Your task to perform on an android device: check android version Image 0: 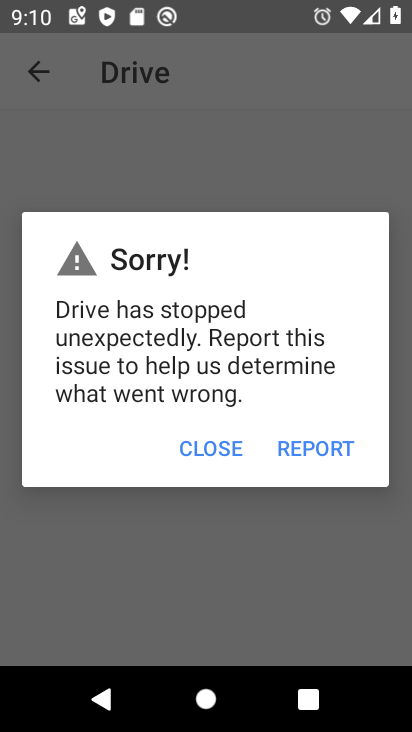
Step 0: press home button
Your task to perform on an android device: check android version Image 1: 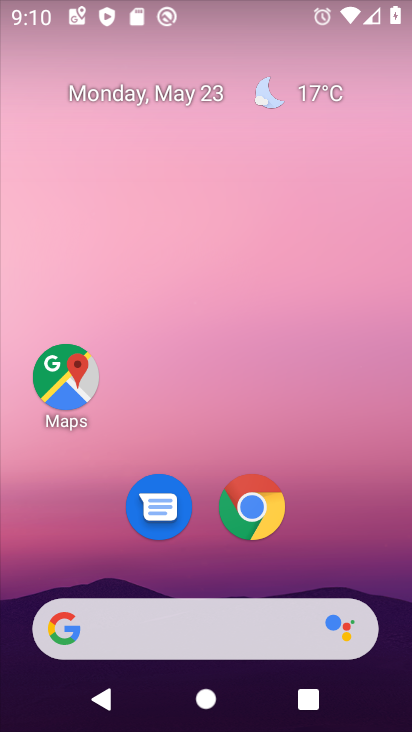
Step 1: drag from (352, 587) to (294, 9)
Your task to perform on an android device: check android version Image 2: 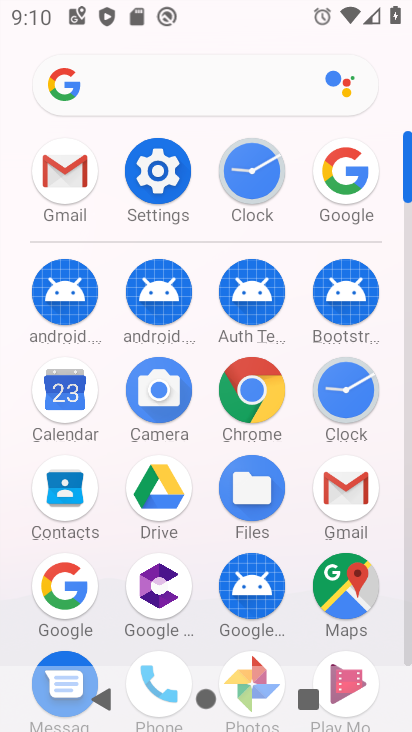
Step 2: click (161, 181)
Your task to perform on an android device: check android version Image 3: 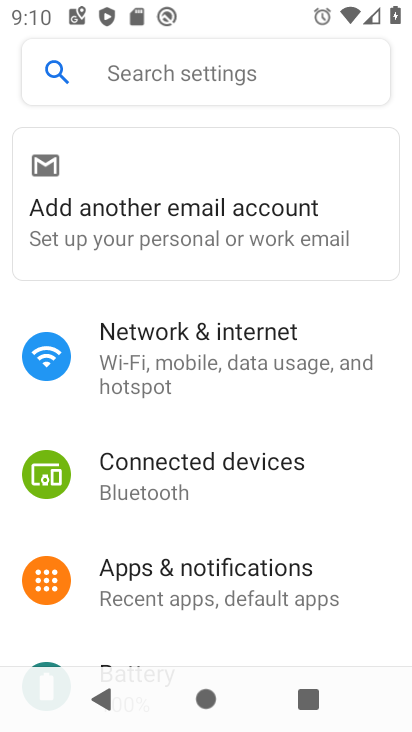
Step 3: drag from (274, 584) to (236, 84)
Your task to perform on an android device: check android version Image 4: 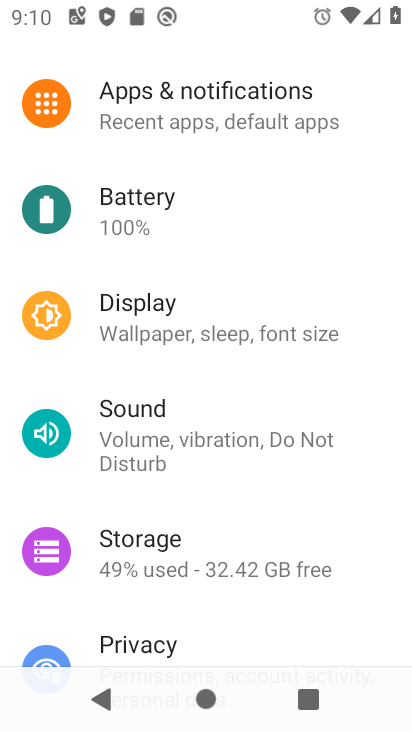
Step 4: drag from (234, 521) to (210, 32)
Your task to perform on an android device: check android version Image 5: 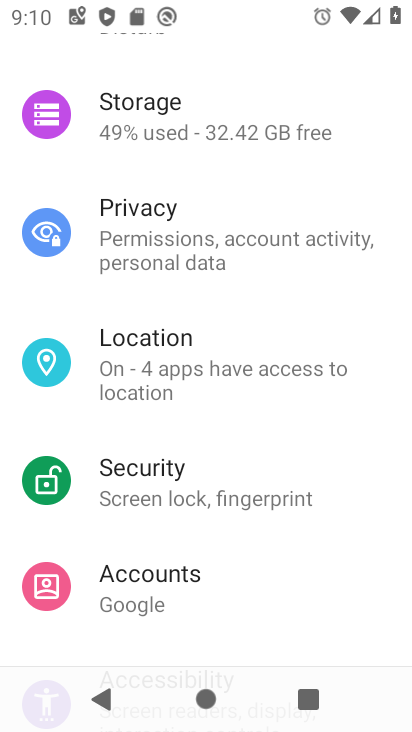
Step 5: drag from (178, 473) to (160, 26)
Your task to perform on an android device: check android version Image 6: 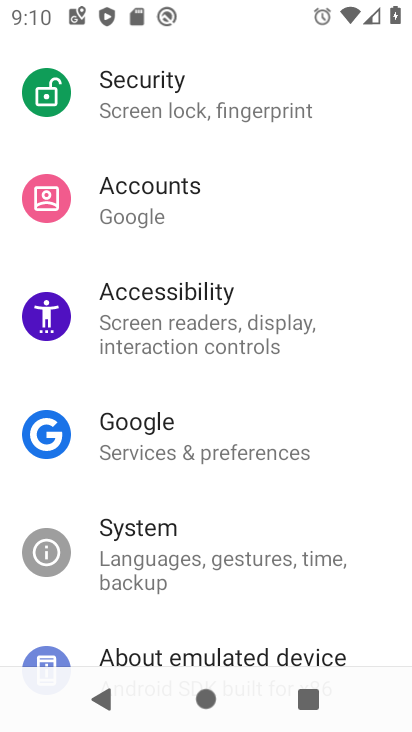
Step 6: drag from (205, 546) to (177, 128)
Your task to perform on an android device: check android version Image 7: 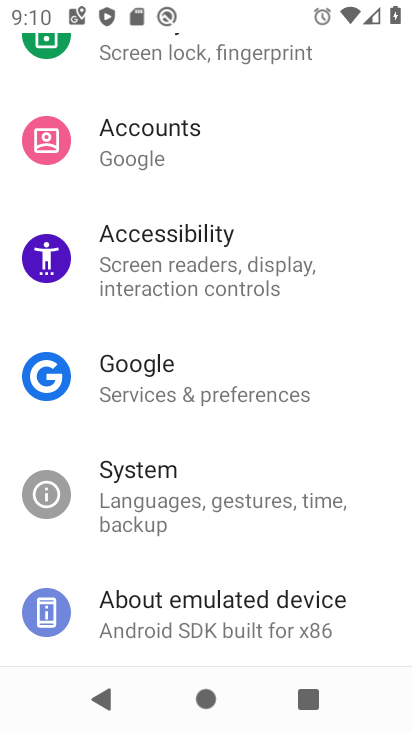
Step 7: click (138, 604)
Your task to perform on an android device: check android version Image 8: 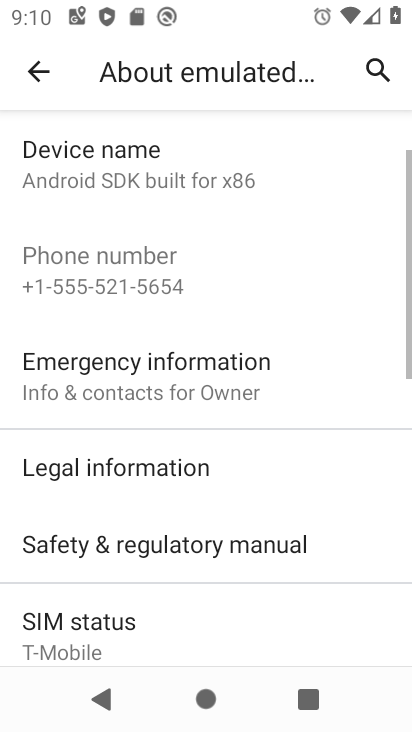
Step 8: drag from (197, 586) to (177, 107)
Your task to perform on an android device: check android version Image 9: 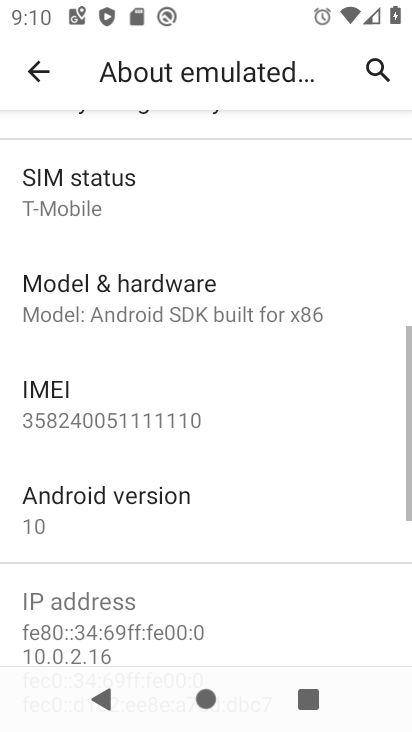
Step 9: drag from (162, 505) to (147, 247)
Your task to perform on an android device: check android version Image 10: 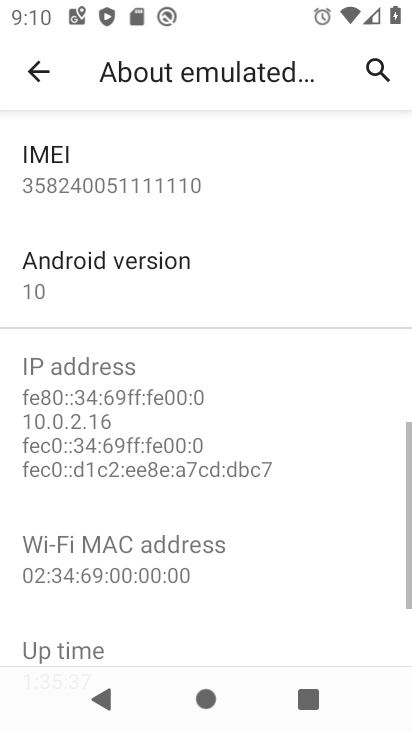
Step 10: click (118, 267)
Your task to perform on an android device: check android version Image 11: 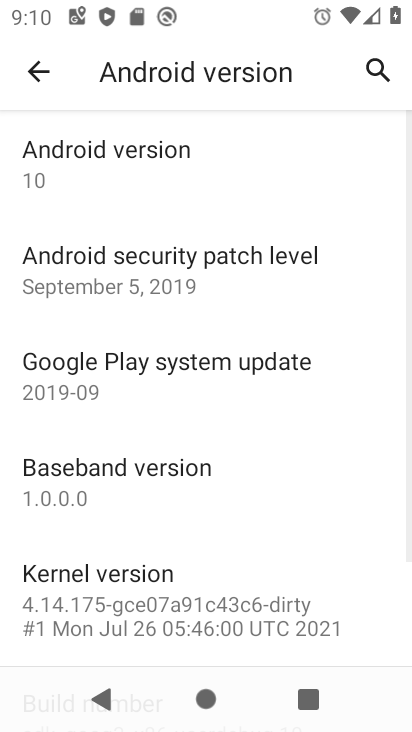
Step 11: task complete